Your task to perform on an android device: turn on translation in the chrome app Image 0: 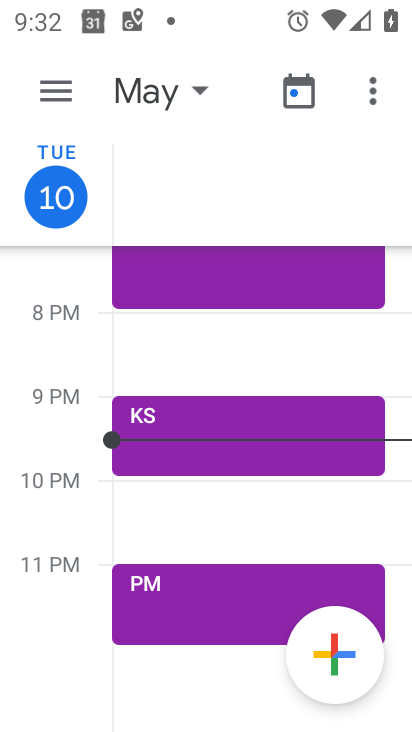
Step 0: press home button
Your task to perform on an android device: turn on translation in the chrome app Image 1: 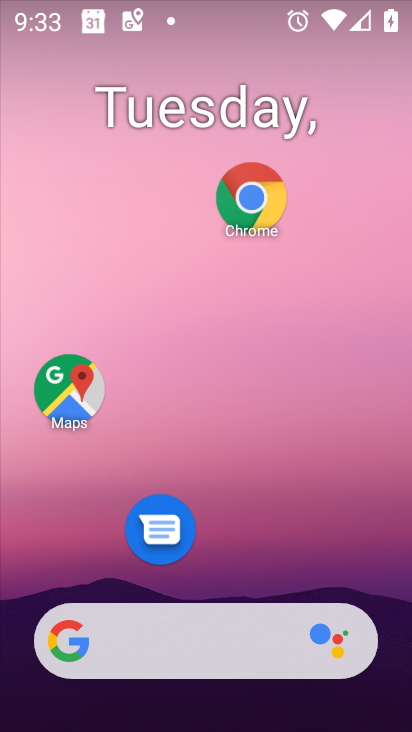
Step 1: drag from (303, 505) to (336, 33)
Your task to perform on an android device: turn on translation in the chrome app Image 2: 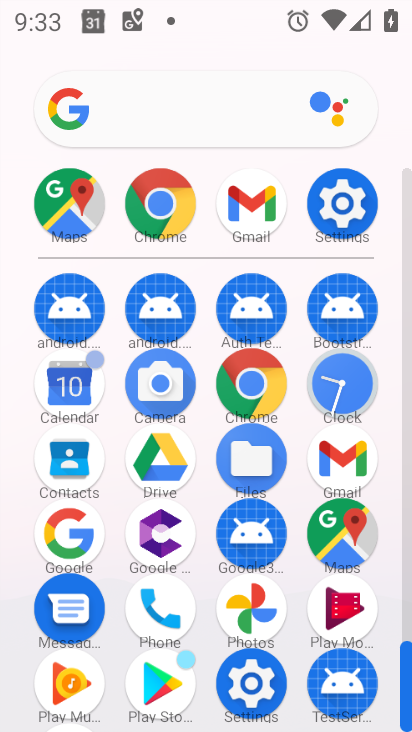
Step 2: click (345, 208)
Your task to perform on an android device: turn on translation in the chrome app Image 3: 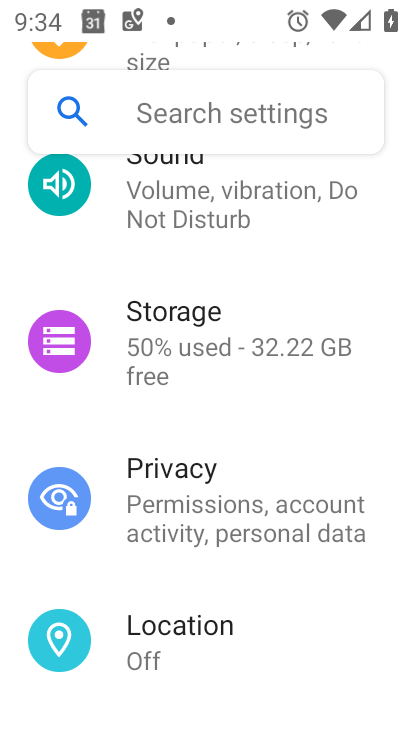
Step 3: press home button
Your task to perform on an android device: turn on translation in the chrome app Image 4: 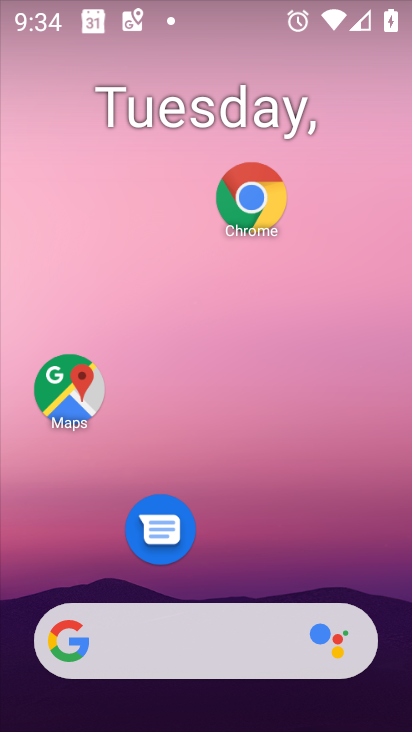
Step 4: click (258, 207)
Your task to perform on an android device: turn on translation in the chrome app Image 5: 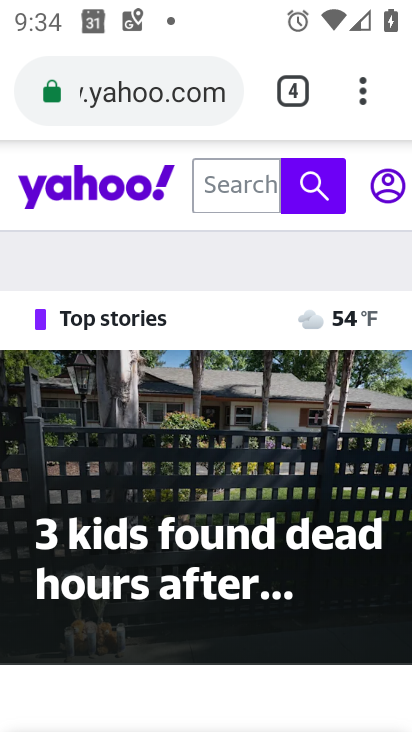
Step 5: click (372, 91)
Your task to perform on an android device: turn on translation in the chrome app Image 6: 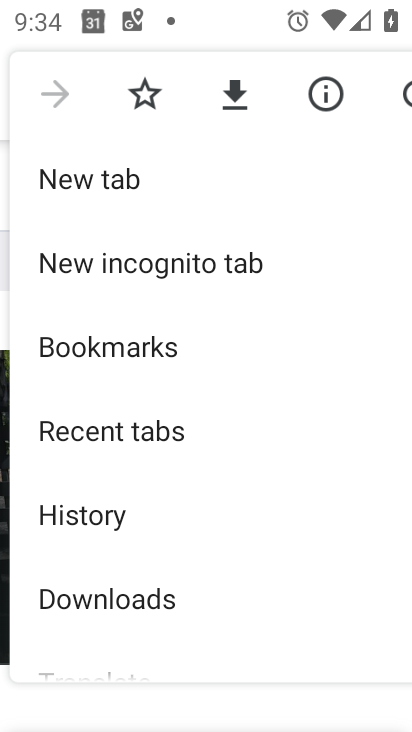
Step 6: drag from (226, 458) to (263, 208)
Your task to perform on an android device: turn on translation in the chrome app Image 7: 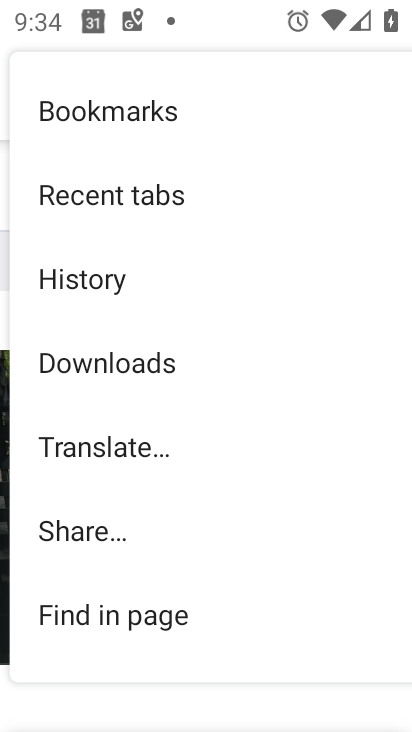
Step 7: drag from (197, 602) to (237, 289)
Your task to perform on an android device: turn on translation in the chrome app Image 8: 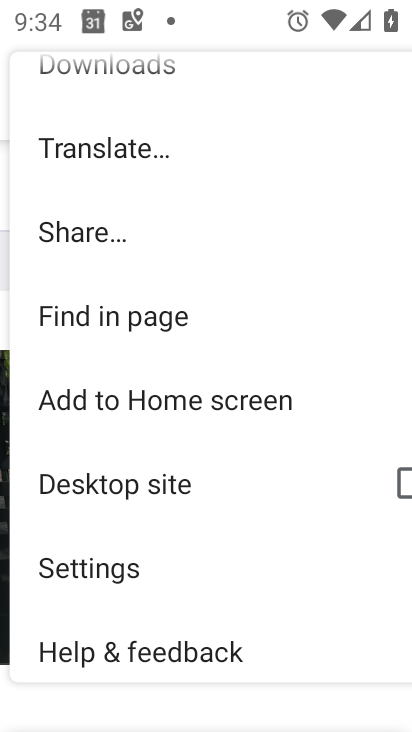
Step 8: click (192, 571)
Your task to perform on an android device: turn on translation in the chrome app Image 9: 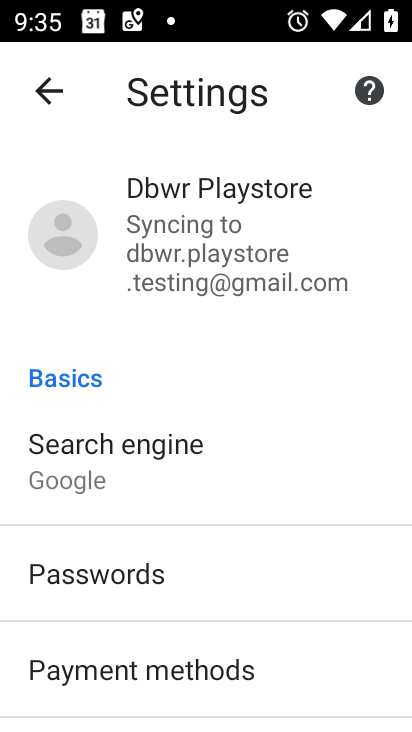
Step 9: drag from (196, 650) to (236, 357)
Your task to perform on an android device: turn on translation in the chrome app Image 10: 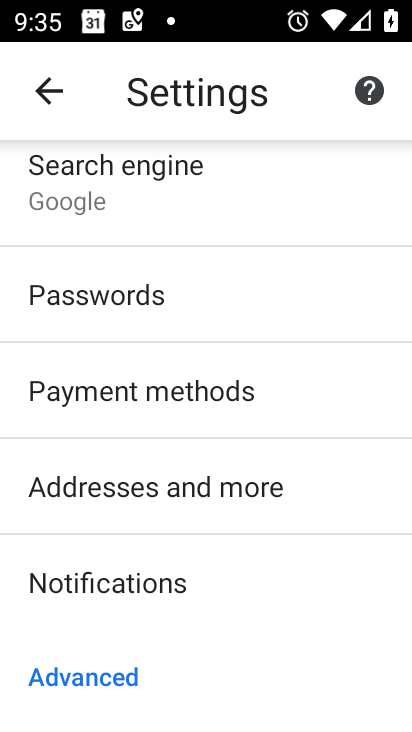
Step 10: drag from (223, 594) to (251, 314)
Your task to perform on an android device: turn on translation in the chrome app Image 11: 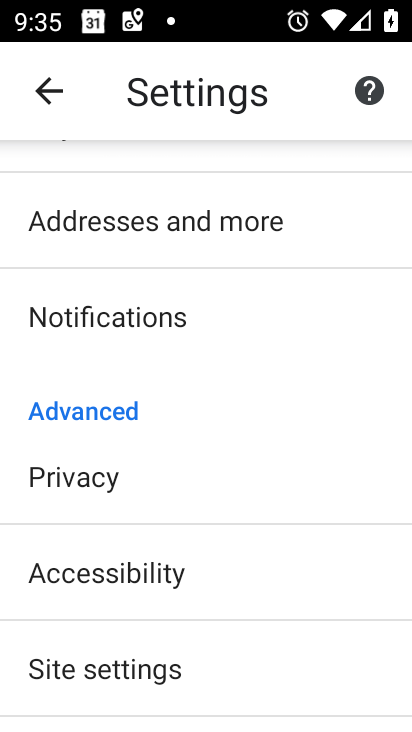
Step 11: drag from (177, 630) to (218, 397)
Your task to perform on an android device: turn on translation in the chrome app Image 12: 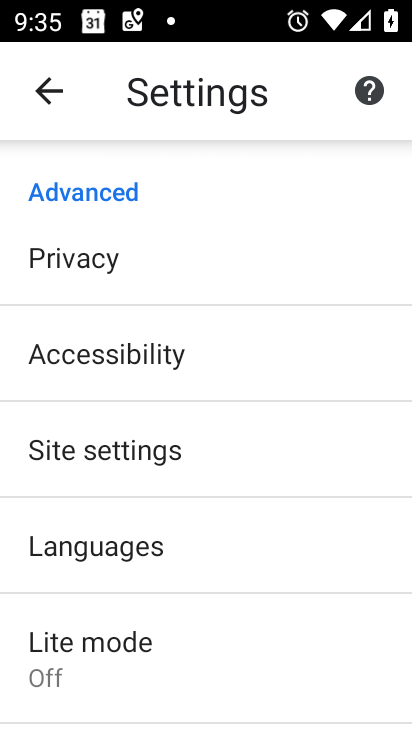
Step 12: click (192, 543)
Your task to perform on an android device: turn on translation in the chrome app Image 13: 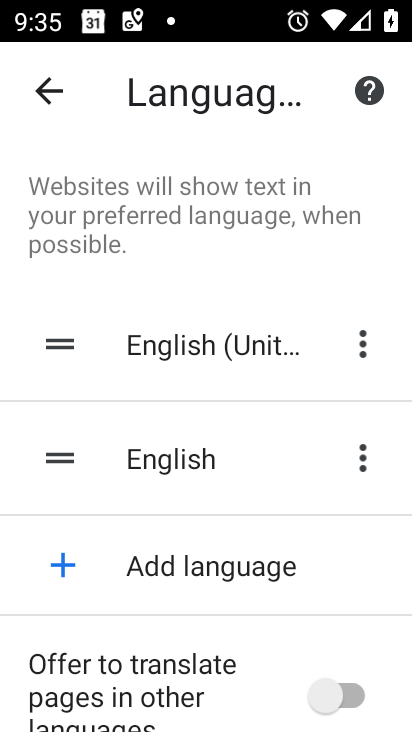
Step 13: click (288, 639)
Your task to perform on an android device: turn on translation in the chrome app Image 14: 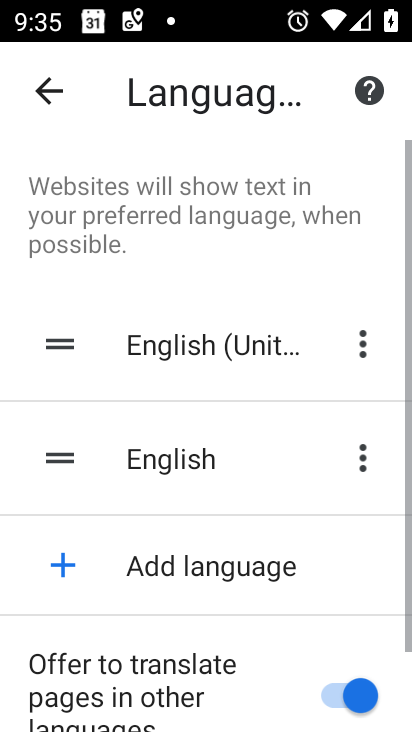
Step 14: task complete